Your task to perform on an android device: Is it going to rain today? Image 0: 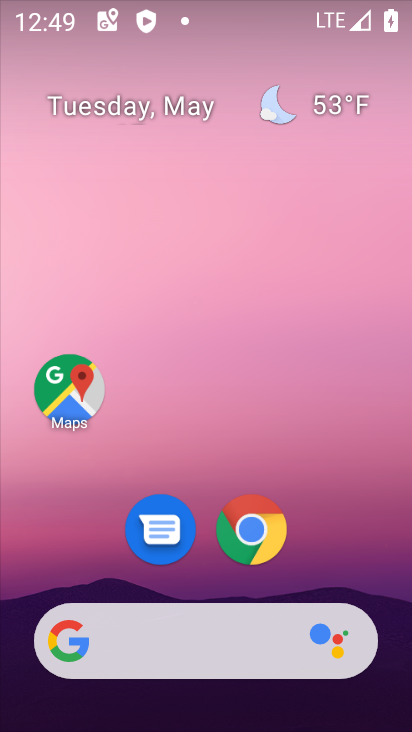
Step 0: click (269, 104)
Your task to perform on an android device: Is it going to rain today? Image 1: 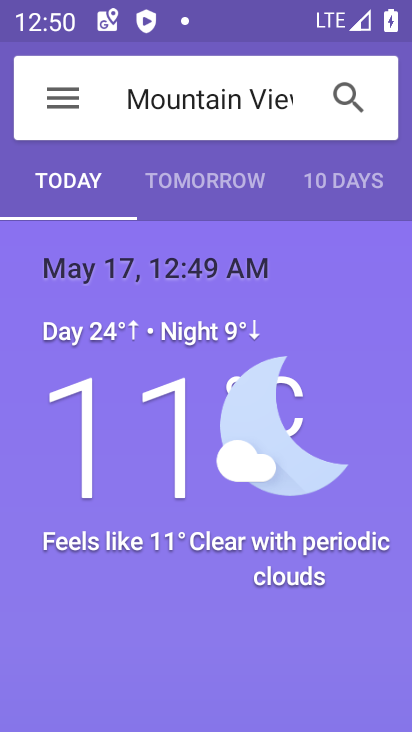
Step 1: task complete